Your task to perform on an android device: change the clock display to digital Image 0: 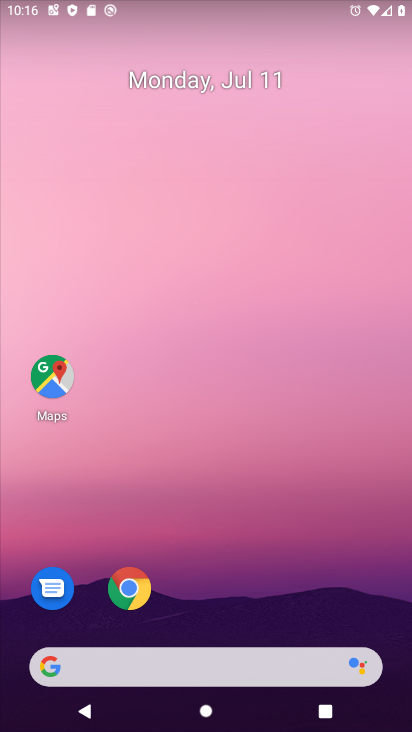
Step 0: drag from (252, 600) to (254, 138)
Your task to perform on an android device: change the clock display to digital Image 1: 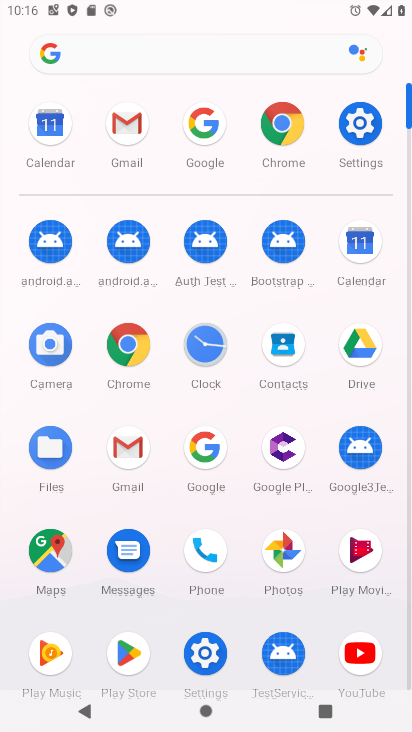
Step 1: click (198, 362)
Your task to perform on an android device: change the clock display to digital Image 2: 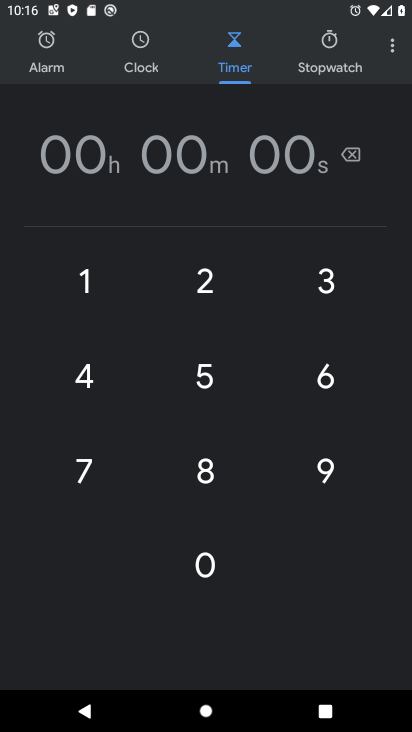
Step 2: click (391, 59)
Your task to perform on an android device: change the clock display to digital Image 3: 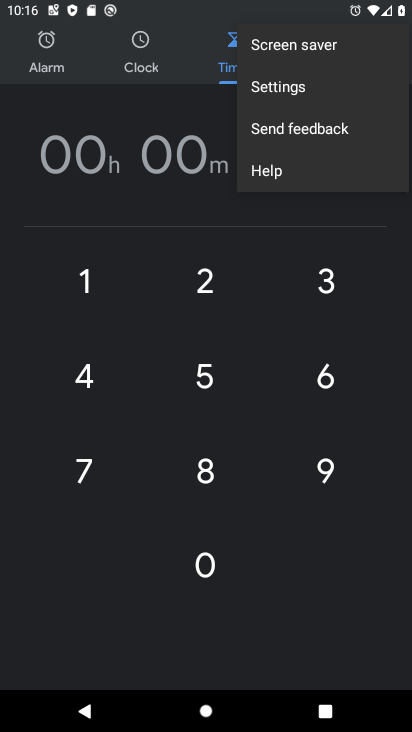
Step 3: click (320, 84)
Your task to perform on an android device: change the clock display to digital Image 4: 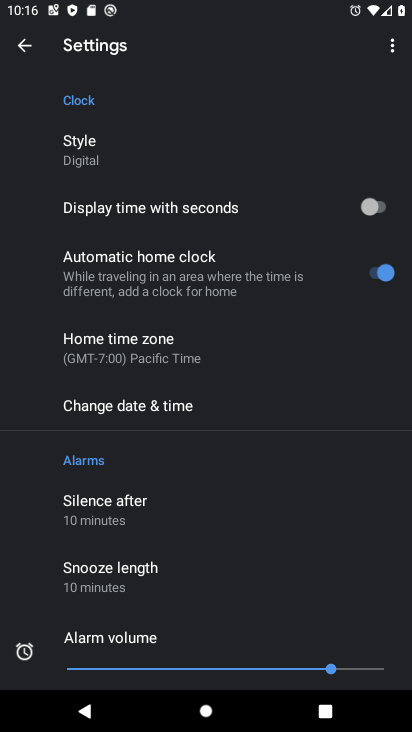
Step 4: click (109, 151)
Your task to perform on an android device: change the clock display to digital Image 5: 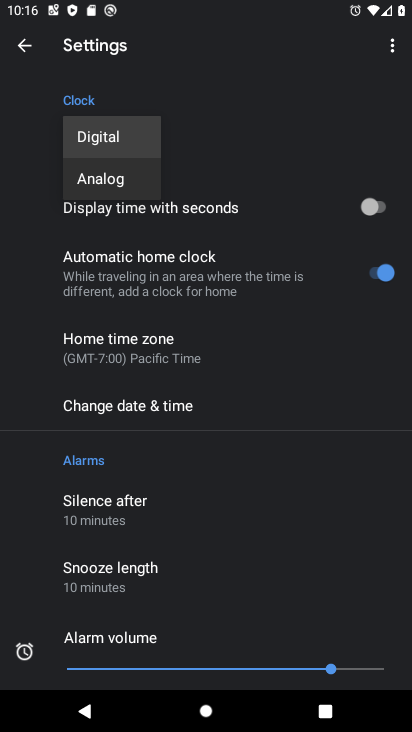
Step 5: task complete